Your task to perform on an android device: Show me productivity apps on the Play Store Image 0: 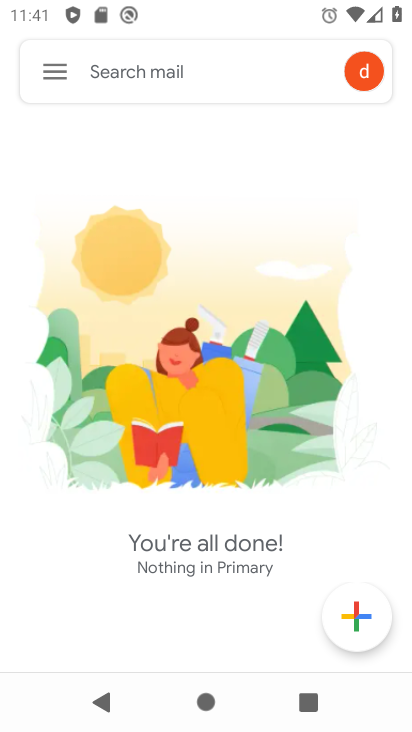
Step 0: press home button
Your task to perform on an android device: Show me productivity apps on the Play Store Image 1: 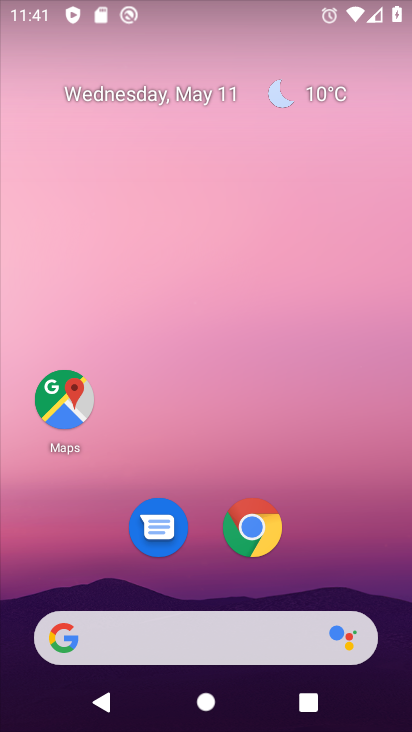
Step 1: drag from (191, 601) to (222, 93)
Your task to perform on an android device: Show me productivity apps on the Play Store Image 2: 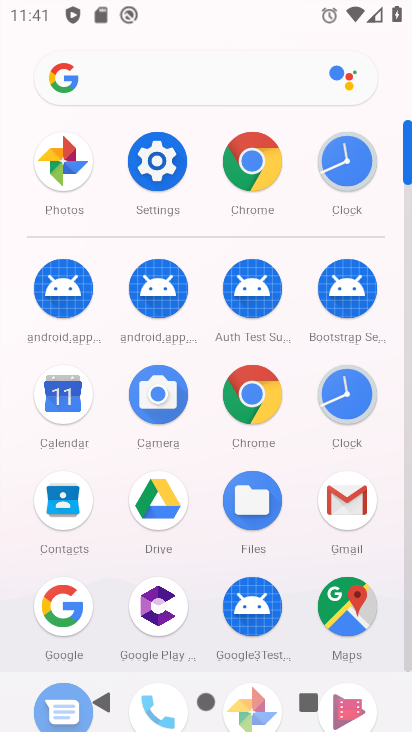
Step 2: drag from (195, 575) to (239, 293)
Your task to perform on an android device: Show me productivity apps on the Play Store Image 3: 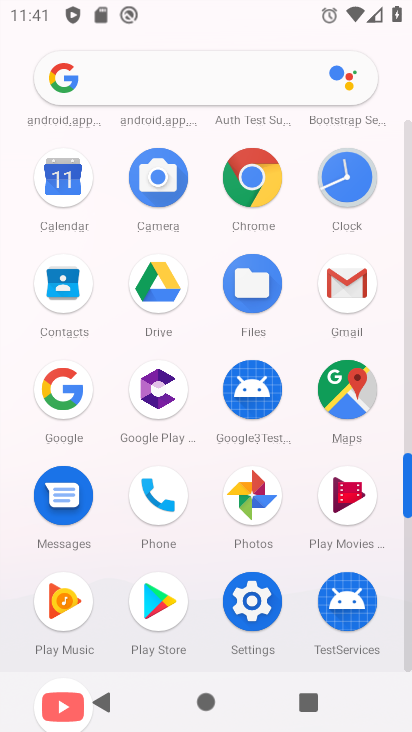
Step 3: click (159, 625)
Your task to perform on an android device: Show me productivity apps on the Play Store Image 4: 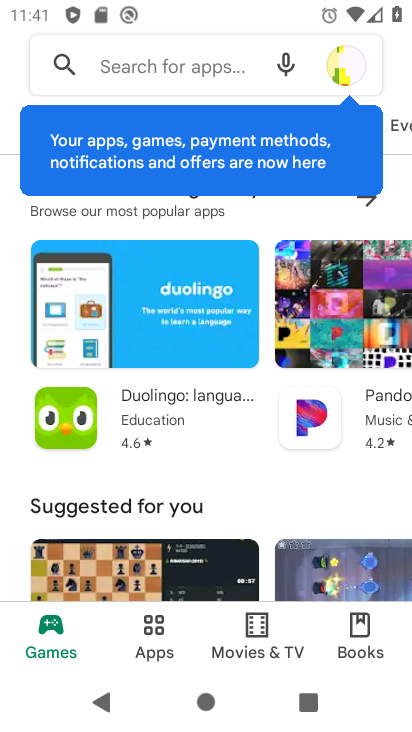
Step 4: click (166, 630)
Your task to perform on an android device: Show me productivity apps on the Play Store Image 5: 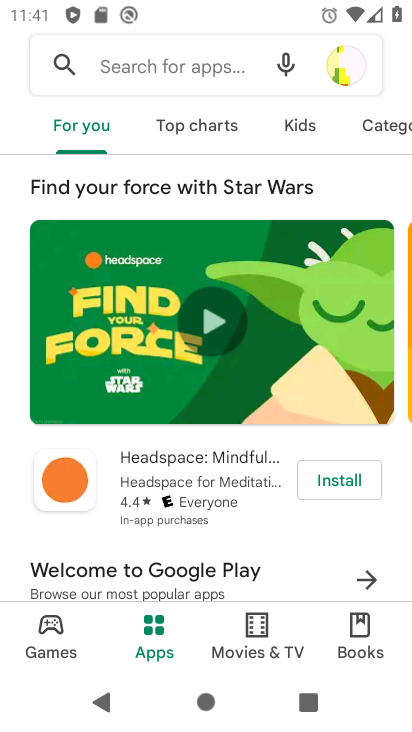
Step 5: click (391, 126)
Your task to perform on an android device: Show me productivity apps on the Play Store Image 6: 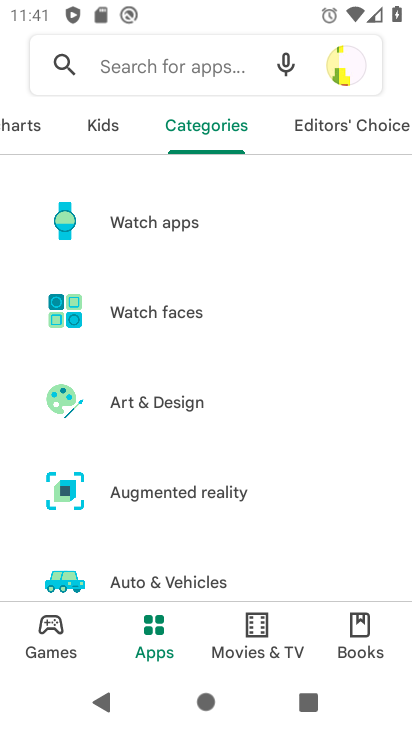
Step 6: drag from (186, 490) to (229, 3)
Your task to perform on an android device: Show me productivity apps on the Play Store Image 7: 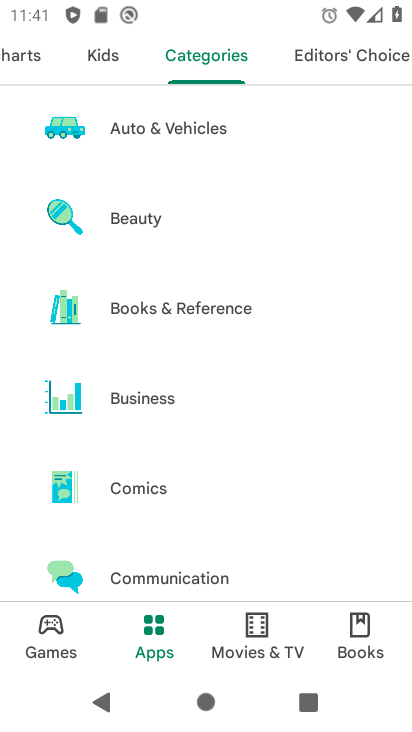
Step 7: drag from (209, 477) to (261, 2)
Your task to perform on an android device: Show me productivity apps on the Play Store Image 8: 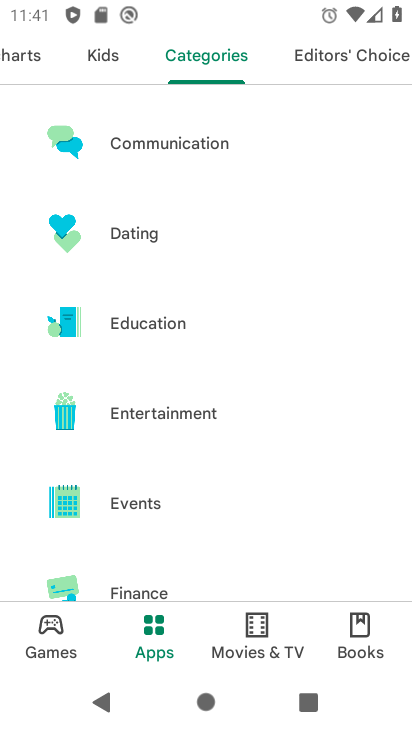
Step 8: drag from (157, 520) to (200, 7)
Your task to perform on an android device: Show me productivity apps on the Play Store Image 9: 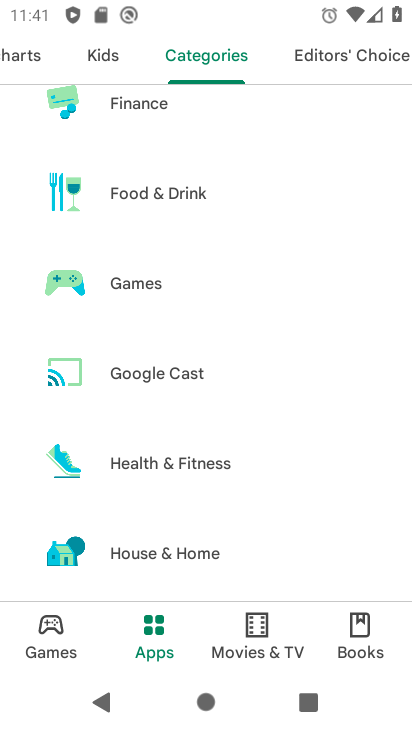
Step 9: drag from (121, 571) to (251, 8)
Your task to perform on an android device: Show me productivity apps on the Play Store Image 10: 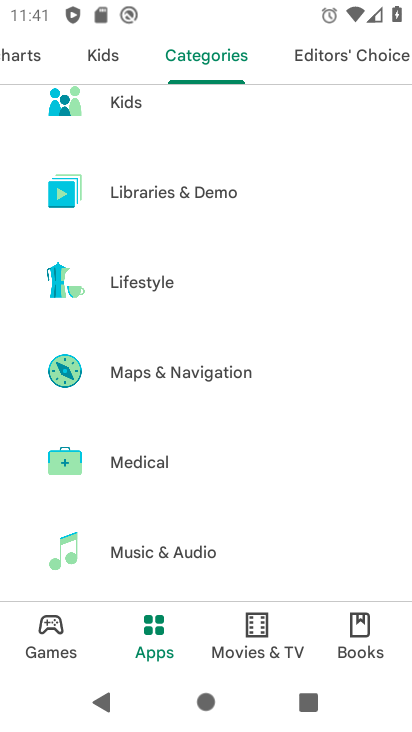
Step 10: drag from (164, 486) to (228, 7)
Your task to perform on an android device: Show me productivity apps on the Play Store Image 11: 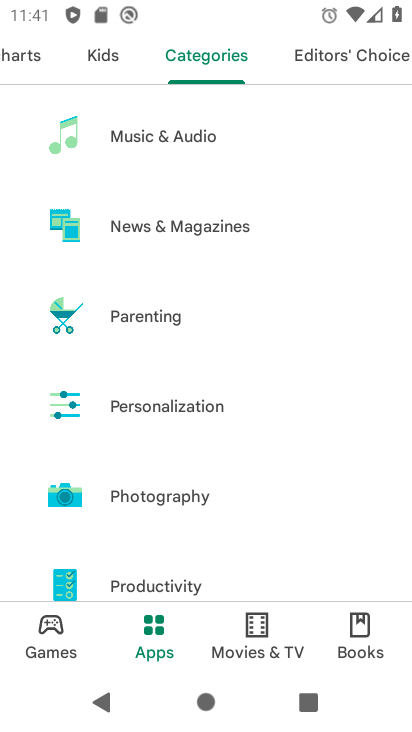
Step 11: drag from (175, 508) to (210, 283)
Your task to perform on an android device: Show me productivity apps on the Play Store Image 12: 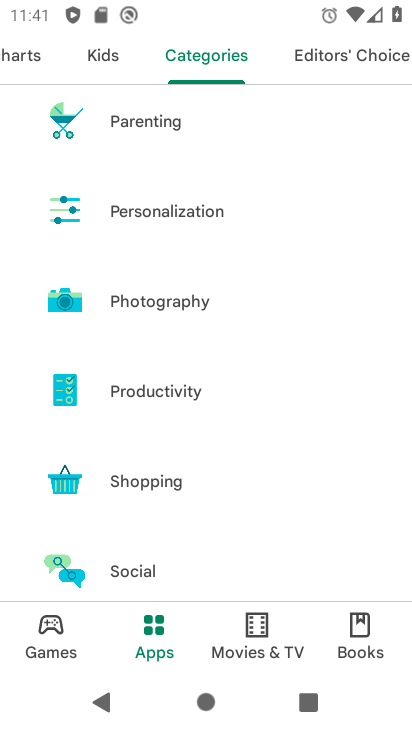
Step 12: click (159, 406)
Your task to perform on an android device: Show me productivity apps on the Play Store Image 13: 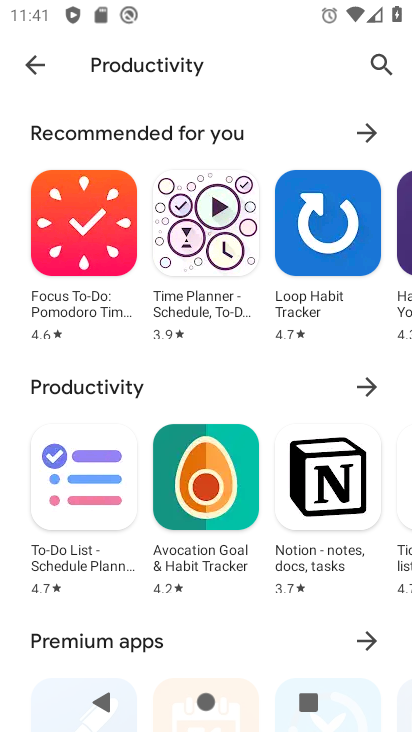
Step 13: task complete